Your task to perform on an android device: Search for usb-b on newegg, select the first entry, and add it to the cart. Image 0: 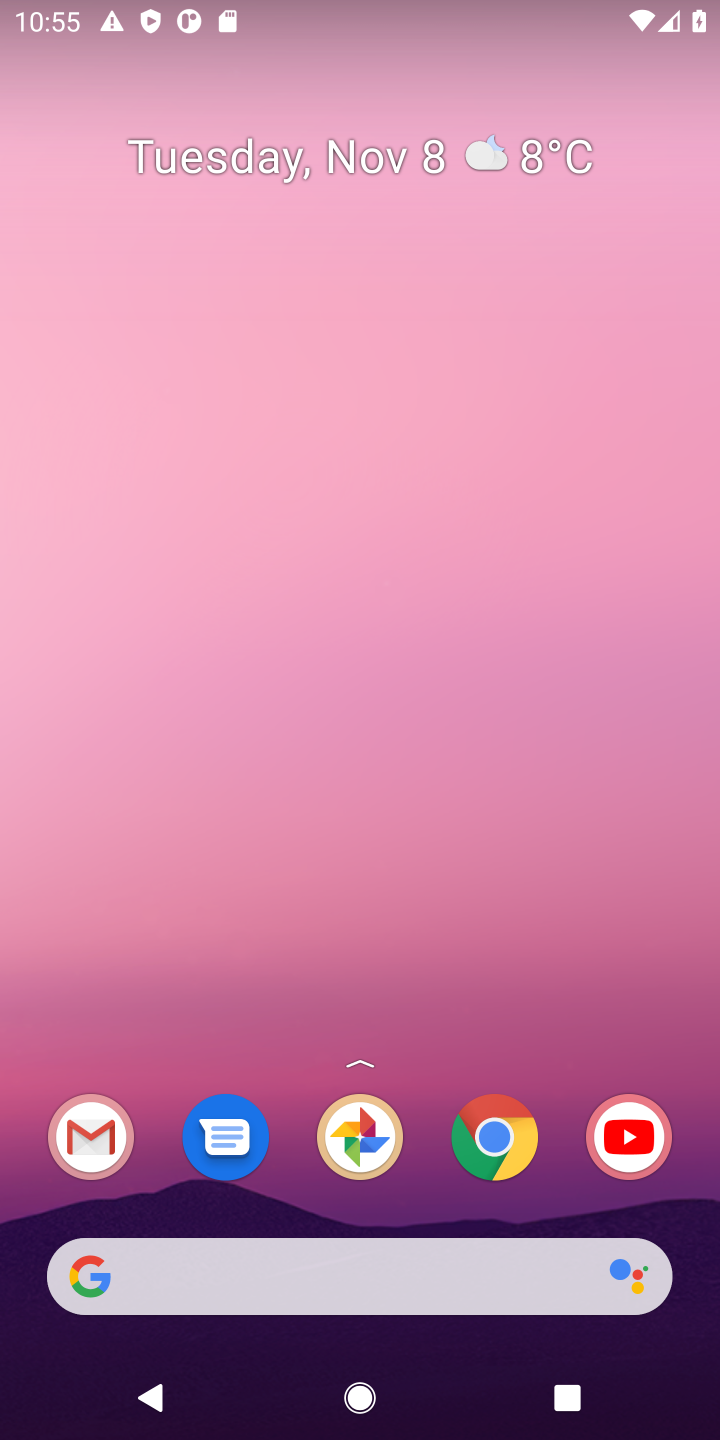
Step 0: click (493, 1167)
Your task to perform on an android device: Search for usb-b on newegg, select the first entry, and add it to the cart. Image 1: 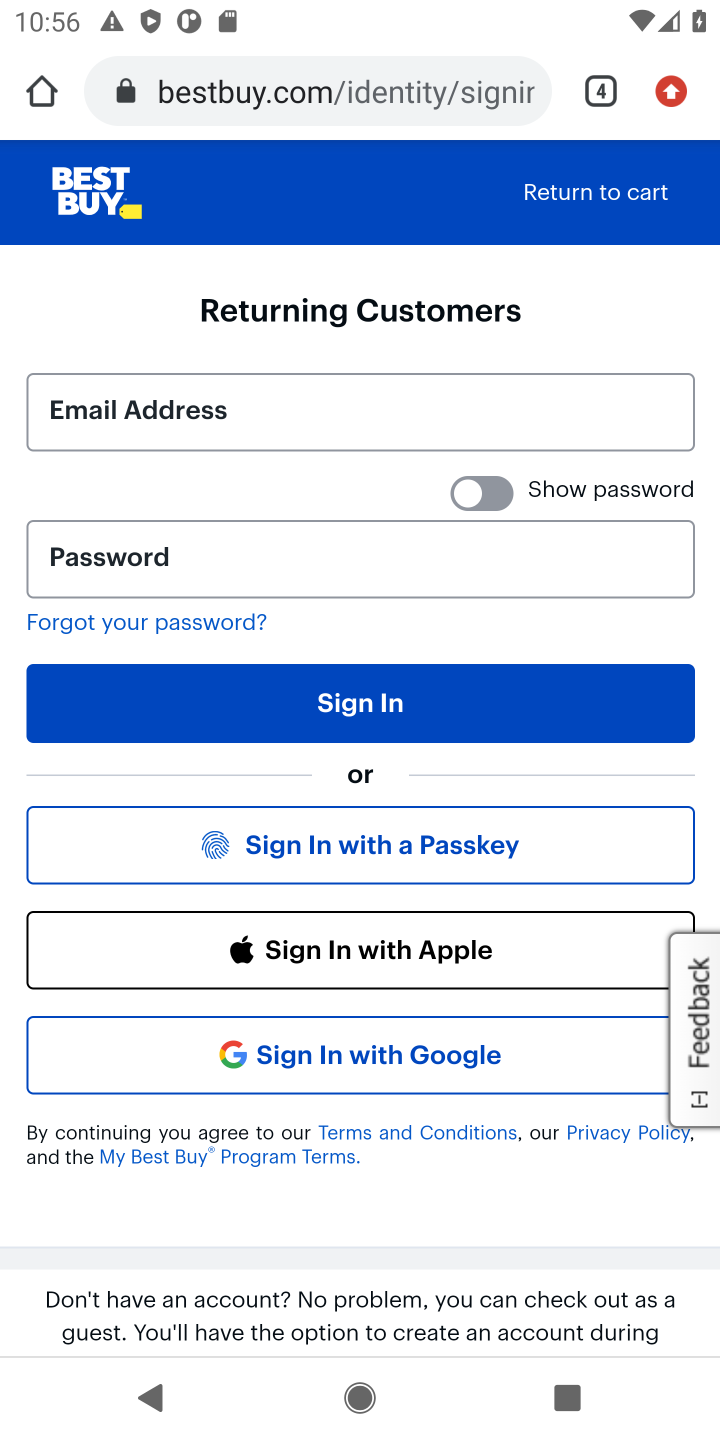
Step 1: click (602, 79)
Your task to perform on an android device: Search for usb-b on newegg, select the first entry, and add it to the cart. Image 2: 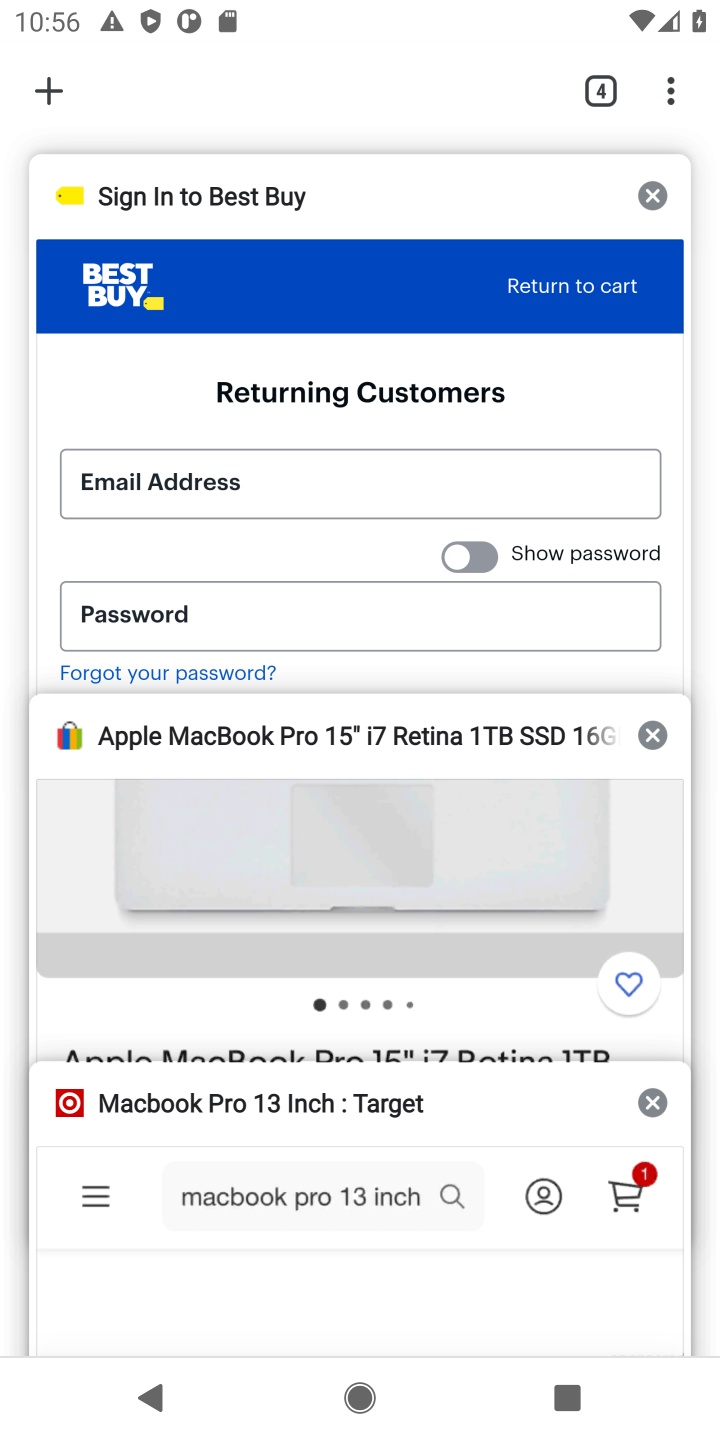
Step 2: click (50, 91)
Your task to perform on an android device: Search for usb-b on newegg, select the first entry, and add it to the cart. Image 3: 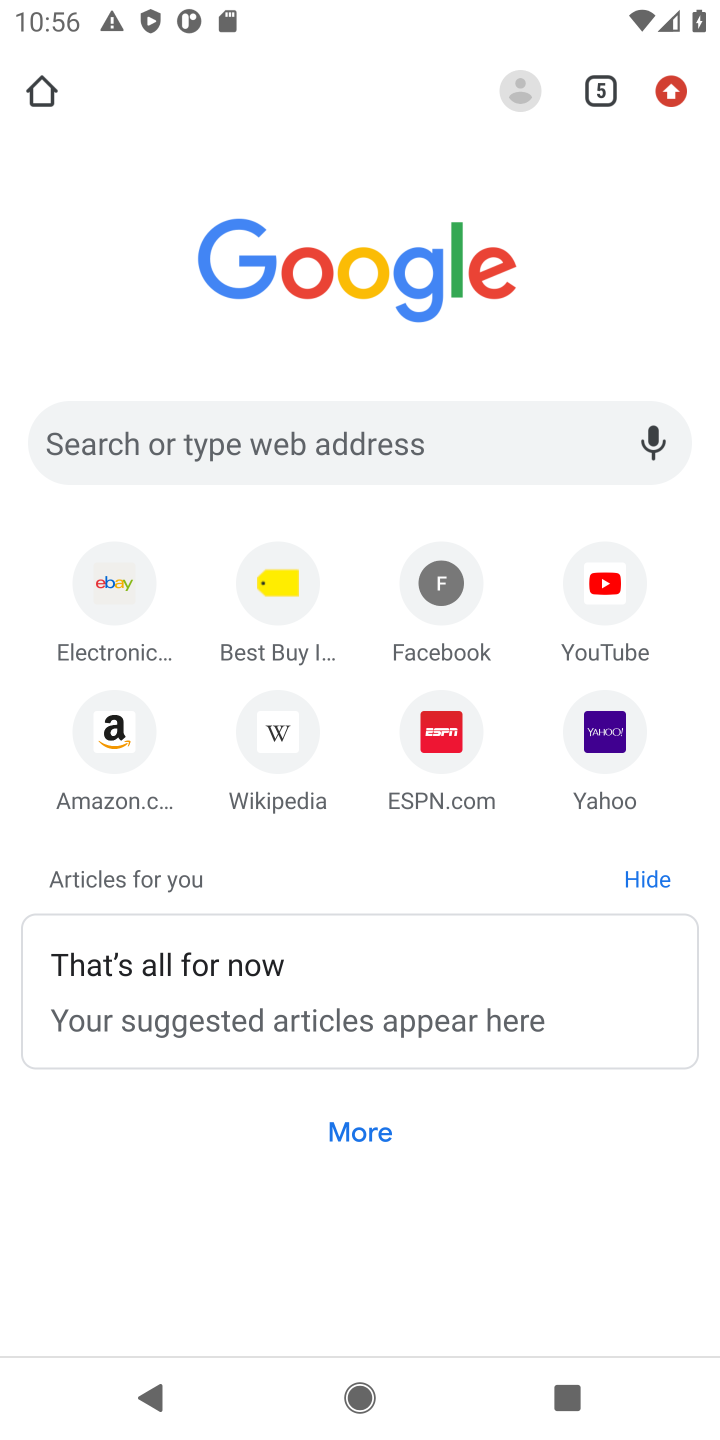
Step 3: click (250, 430)
Your task to perform on an android device: Search for usb-b on newegg, select the first entry, and add it to the cart. Image 4: 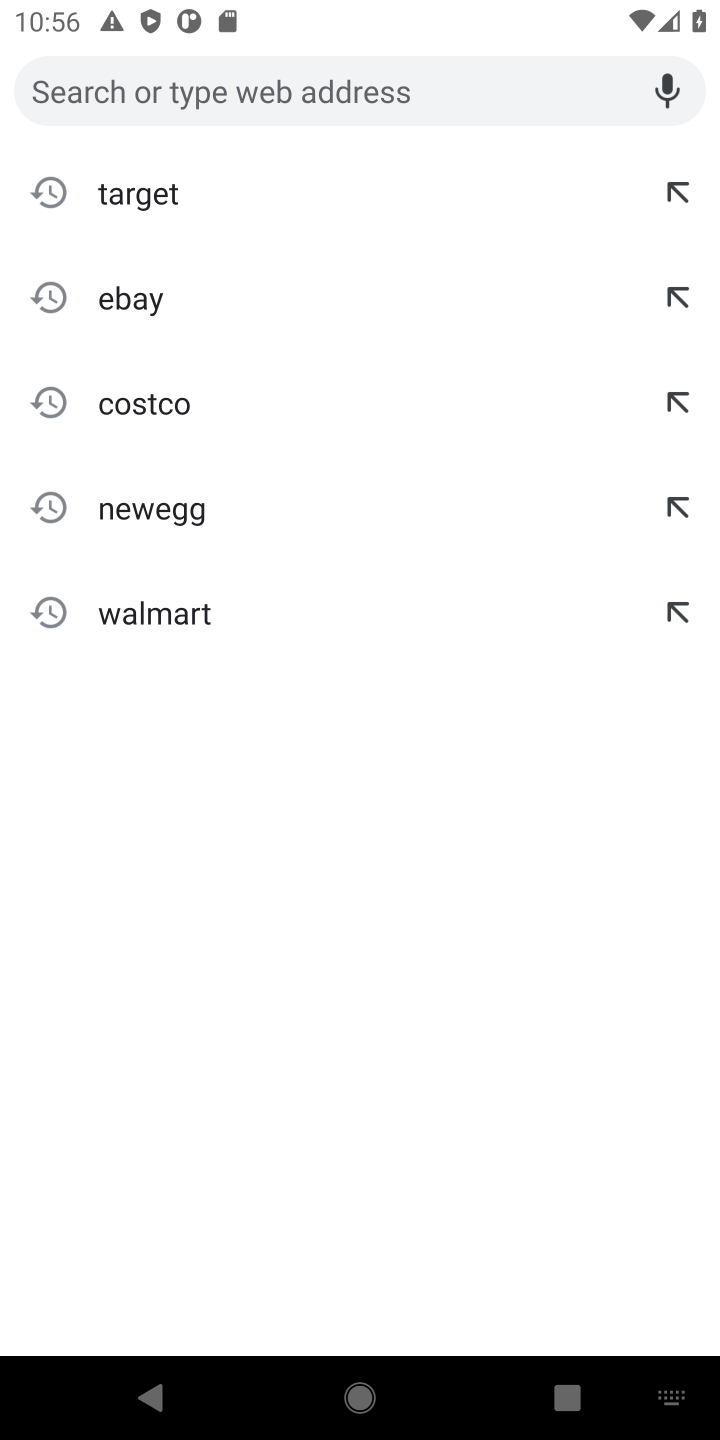
Step 4: click (141, 510)
Your task to perform on an android device: Search for usb-b on newegg, select the first entry, and add it to the cart. Image 5: 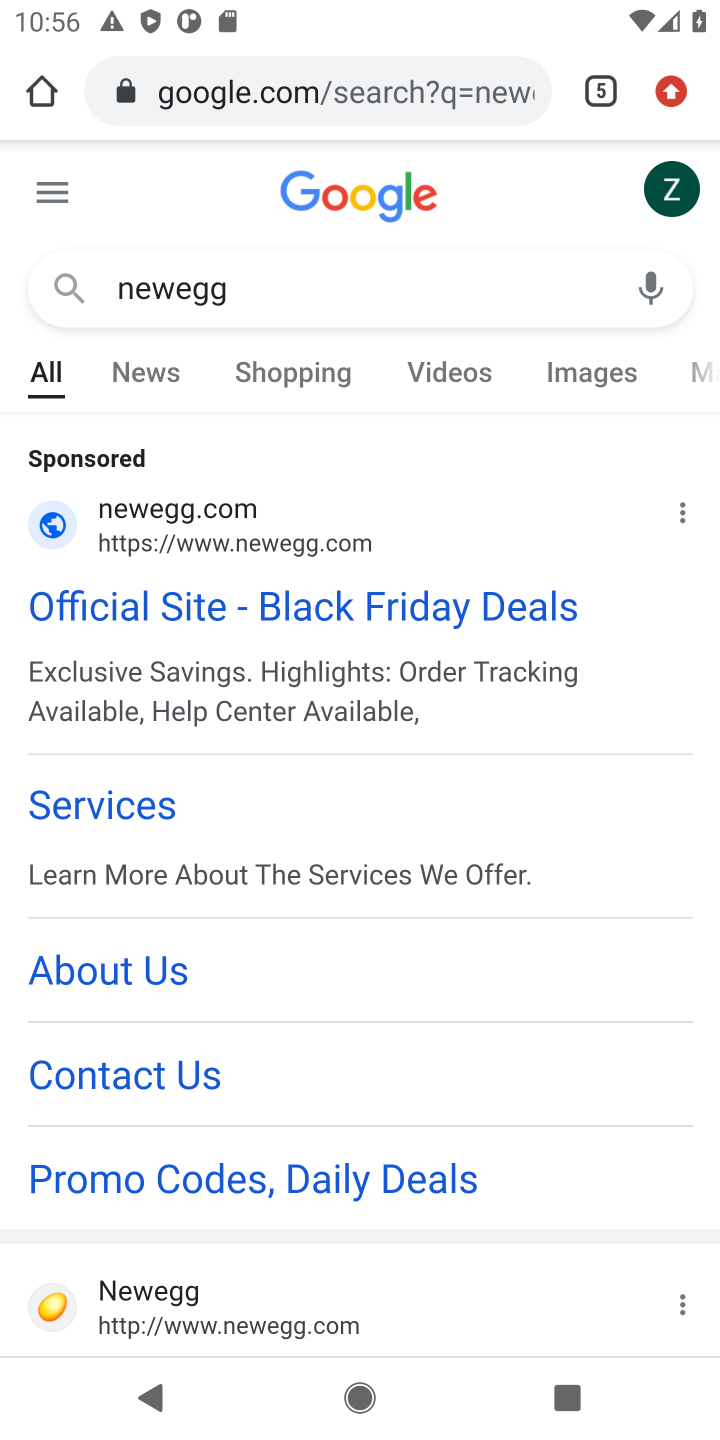
Step 5: drag from (281, 1281) to (553, 156)
Your task to perform on an android device: Search for usb-b on newegg, select the first entry, and add it to the cart. Image 6: 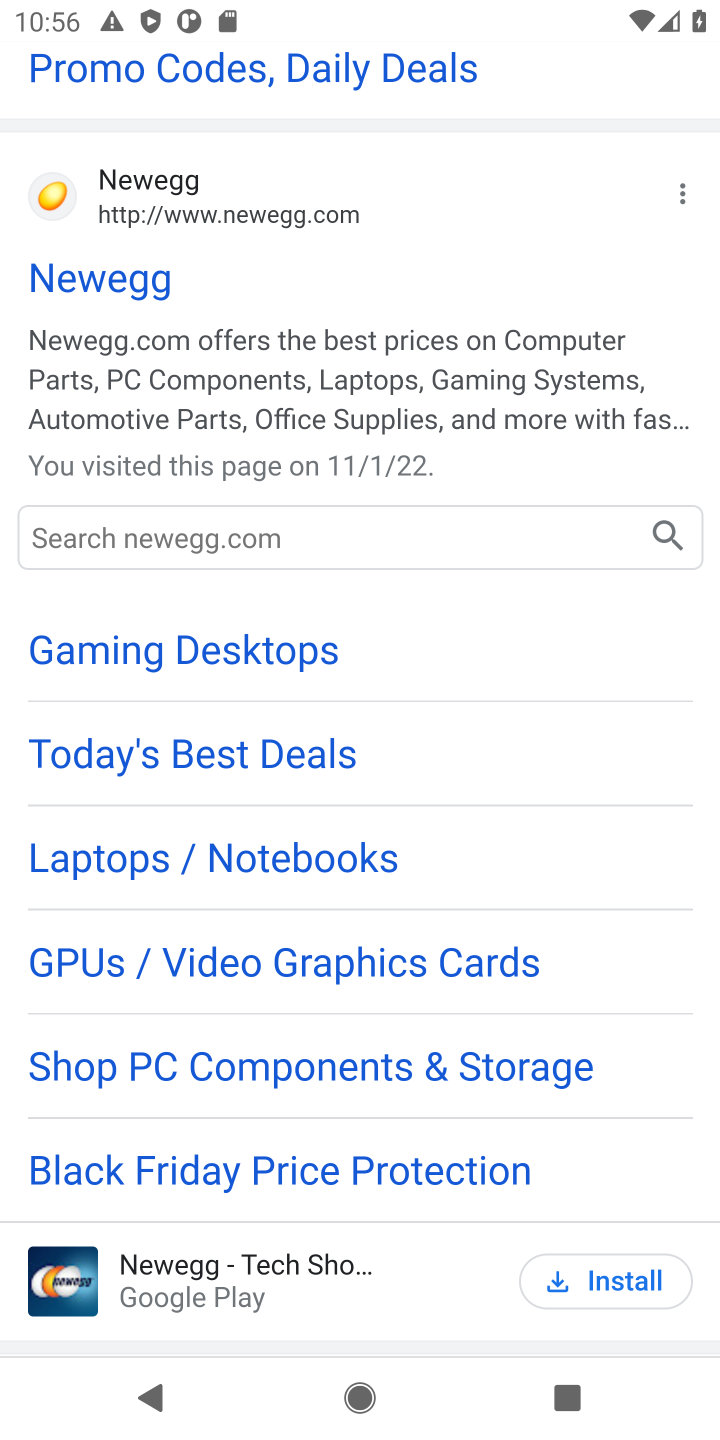
Step 6: click (118, 1028)
Your task to perform on an android device: Search for usb-b on newegg, select the first entry, and add it to the cart. Image 7: 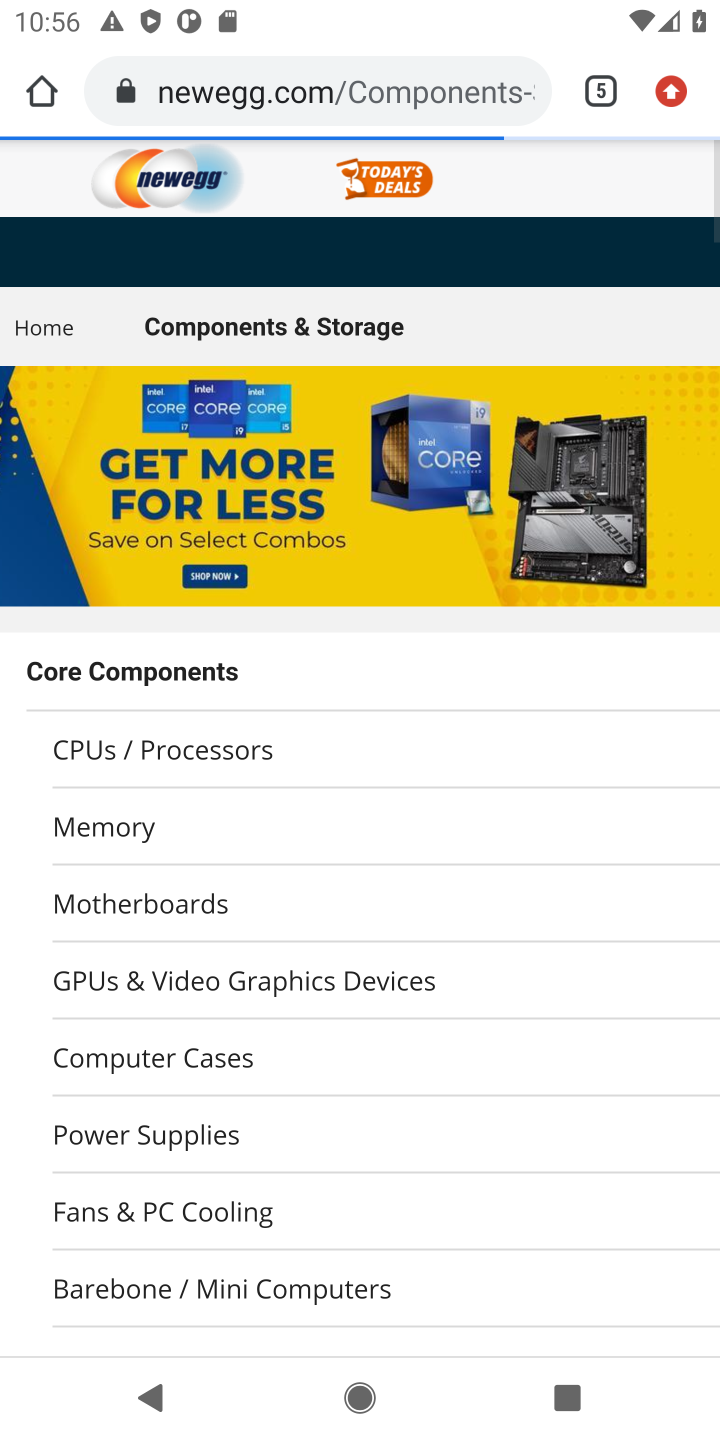
Step 7: click (224, 515)
Your task to perform on an android device: Search for usb-b on newegg, select the first entry, and add it to the cart. Image 8: 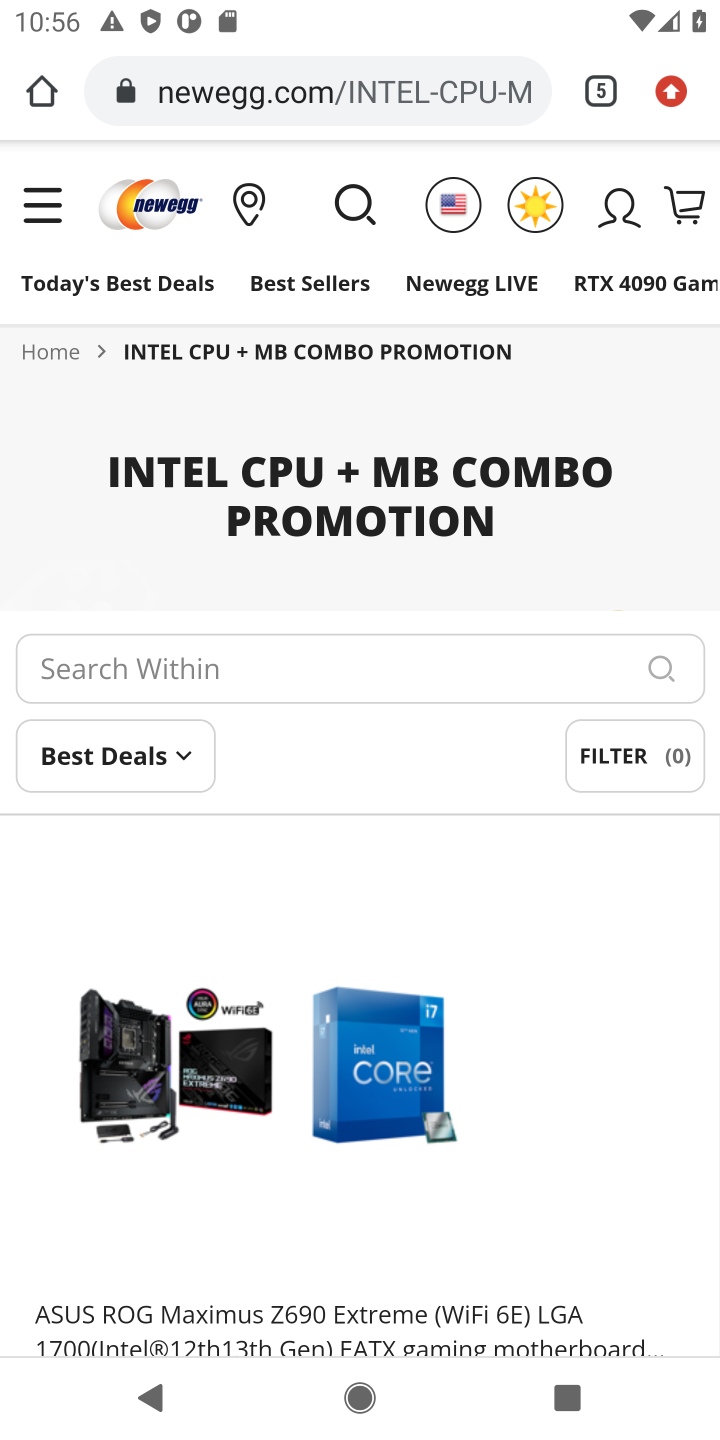
Step 8: click (449, 207)
Your task to perform on an android device: Search for usb-b on newegg, select the first entry, and add it to the cart. Image 9: 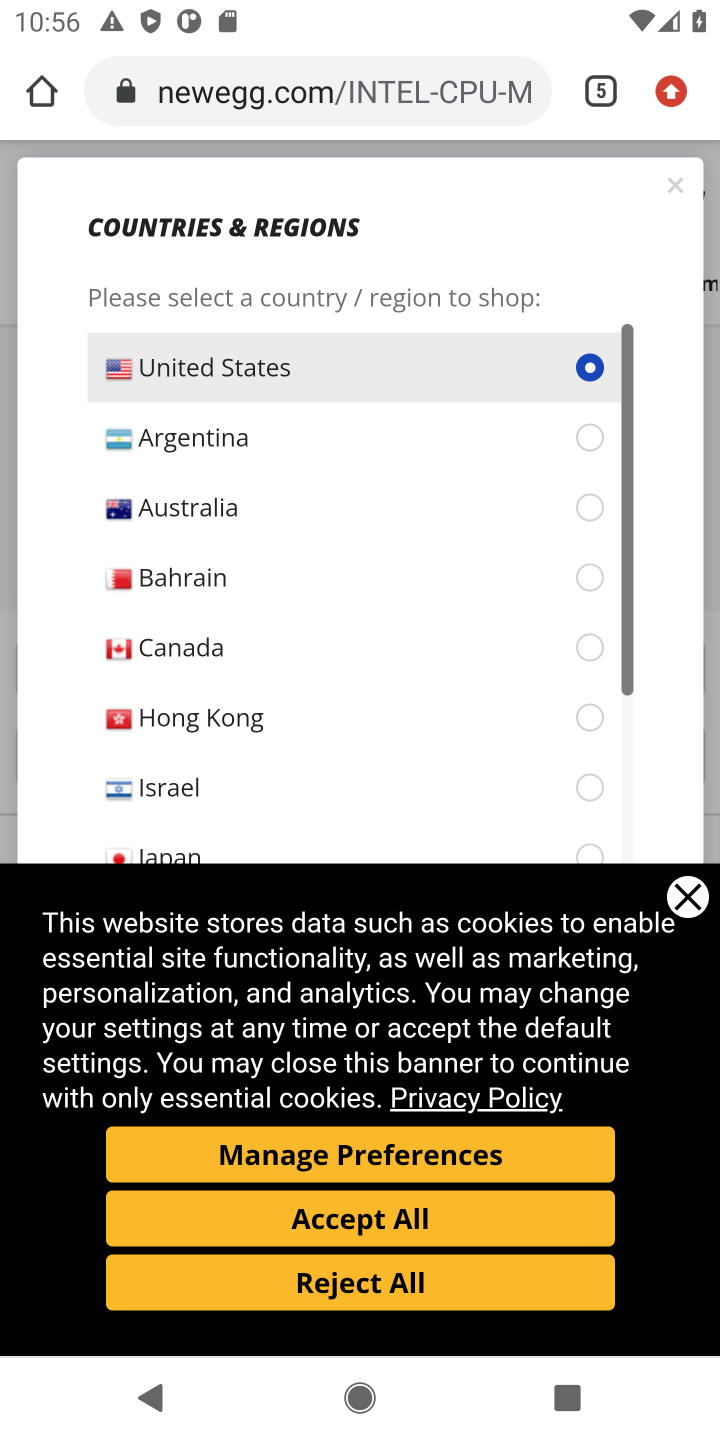
Step 9: click (345, 192)
Your task to perform on an android device: Search for usb-b on newegg, select the first entry, and add it to the cart. Image 10: 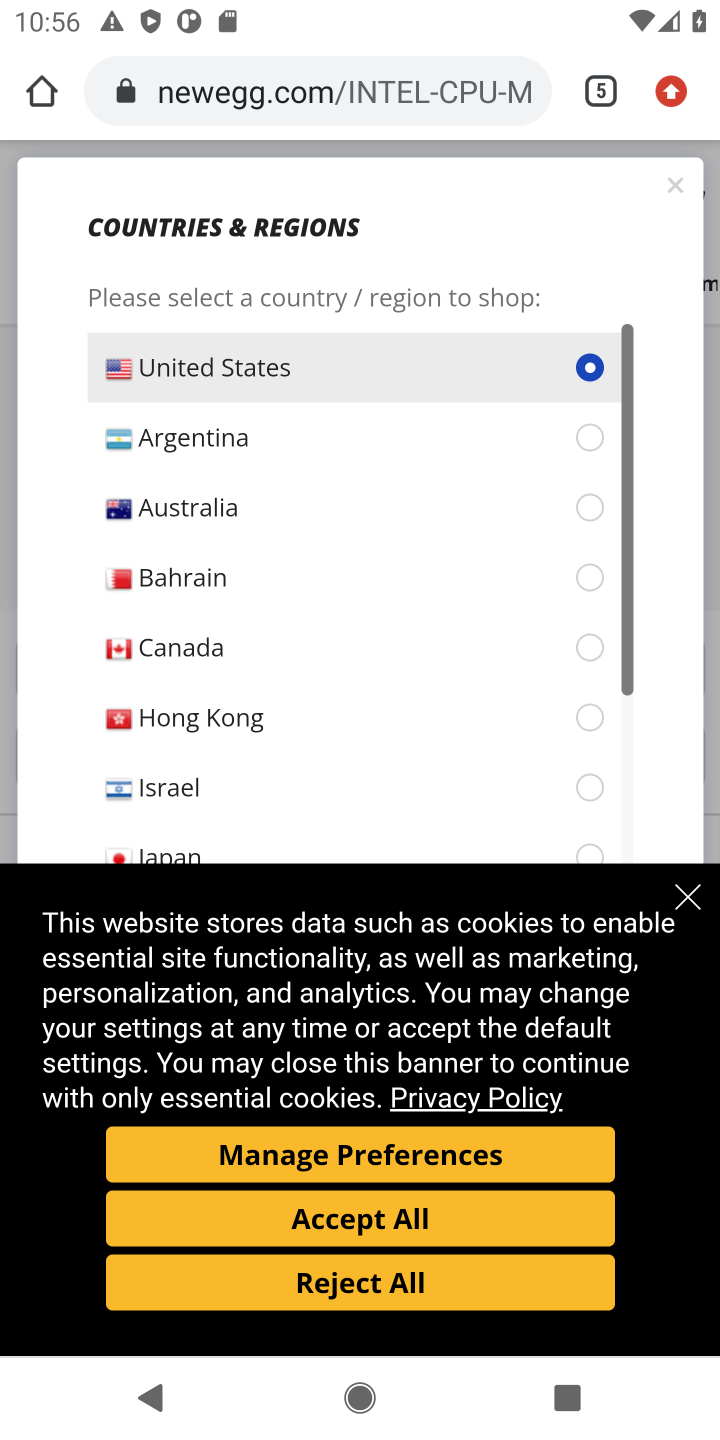
Step 10: click (676, 892)
Your task to perform on an android device: Search for usb-b on newegg, select the first entry, and add it to the cart. Image 11: 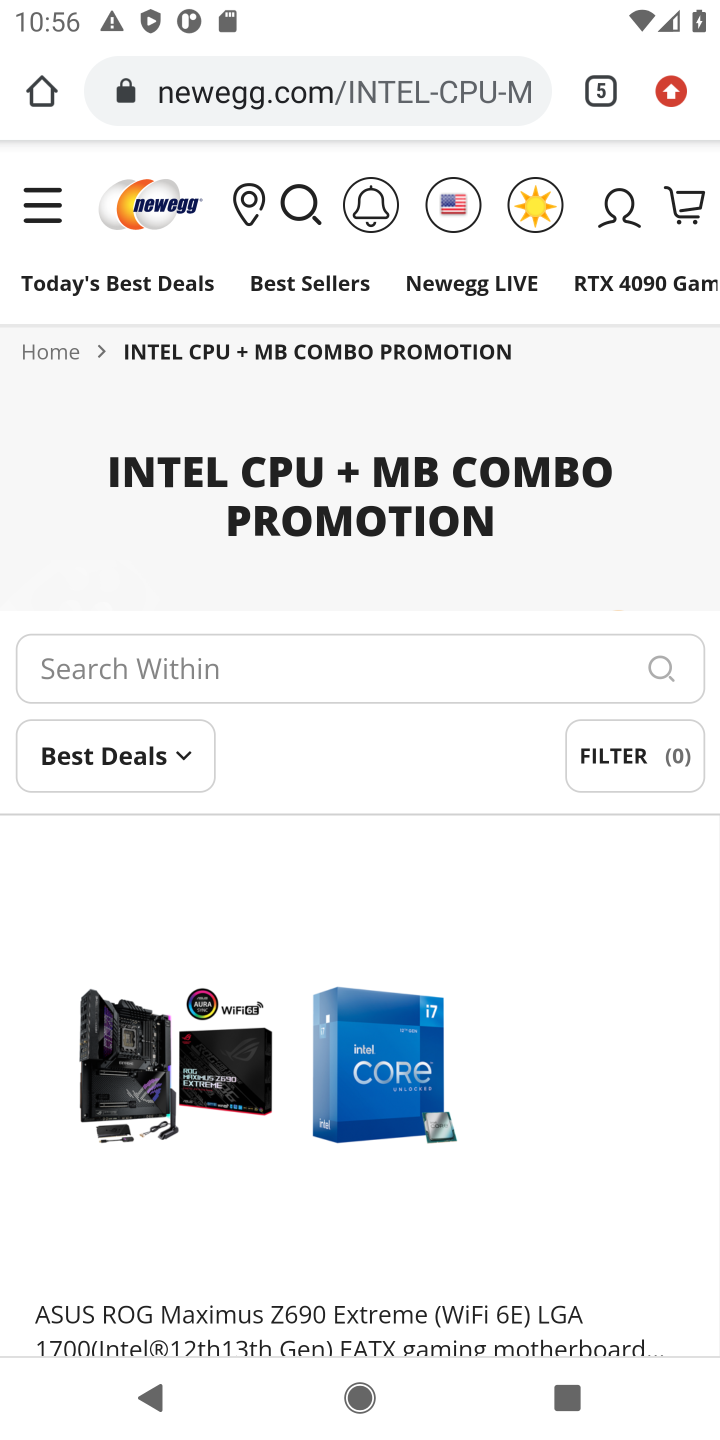
Step 11: click (311, 200)
Your task to perform on an android device: Search for usb-b on newegg, select the first entry, and add it to the cart. Image 12: 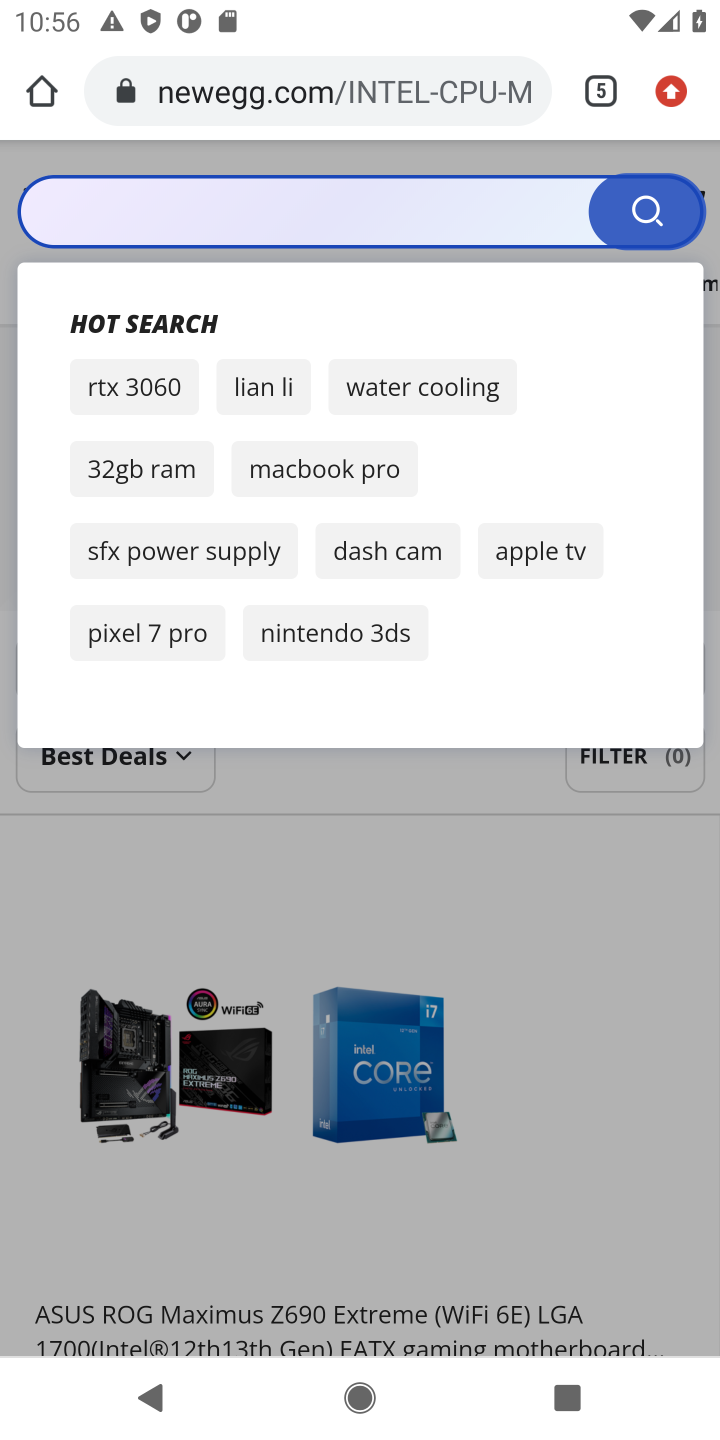
Step 12: type "usb-b"
Your task to perform on an android device: Search for usb-b on newegg, select the first entry, and add it to the cart. Image 13: 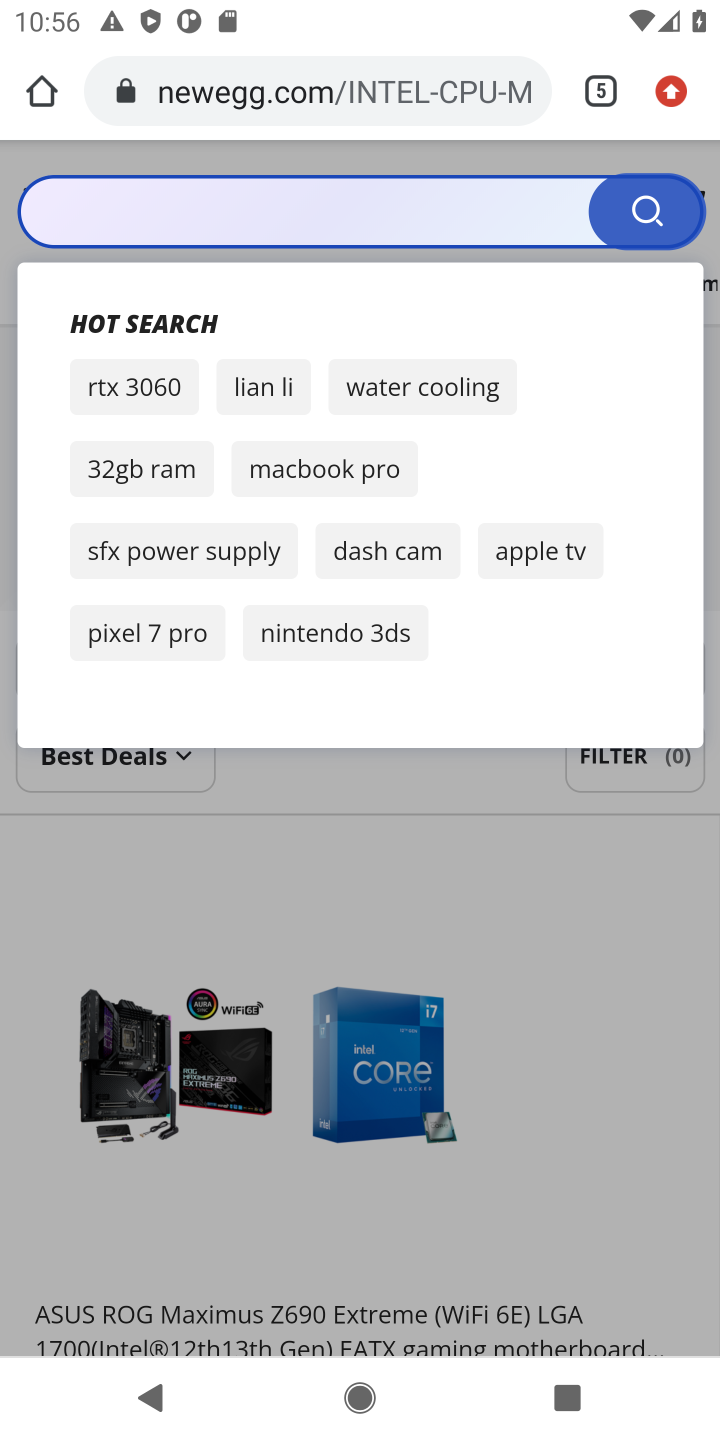
Step 13: click (385, 217)
Your task to perform on an android device: Search for usb-b on newegg, select the first entry, and add it to the cart. Image 14: 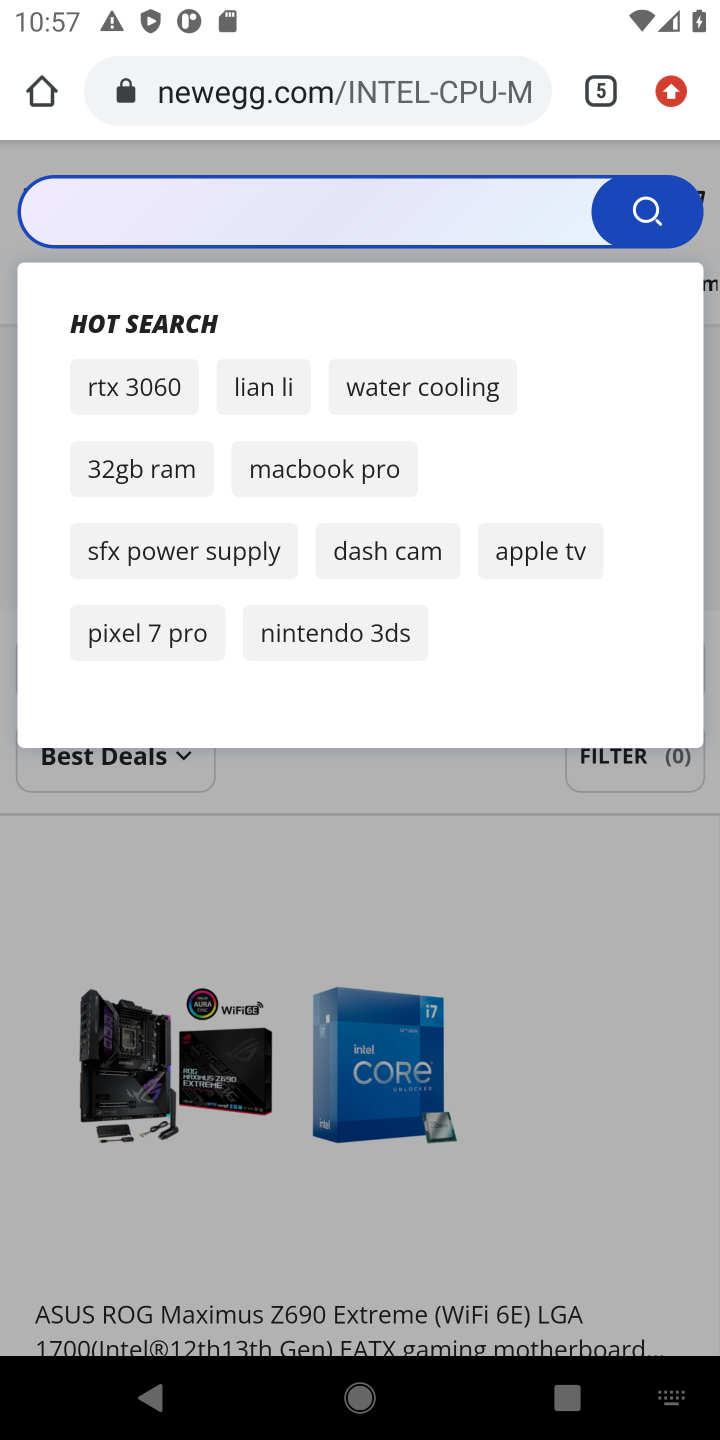
Step 14: type "usb-b"
Your task to perform on an android device: Search for usb-b on newegg, select the first entry, and add it to the cart. Image 15: 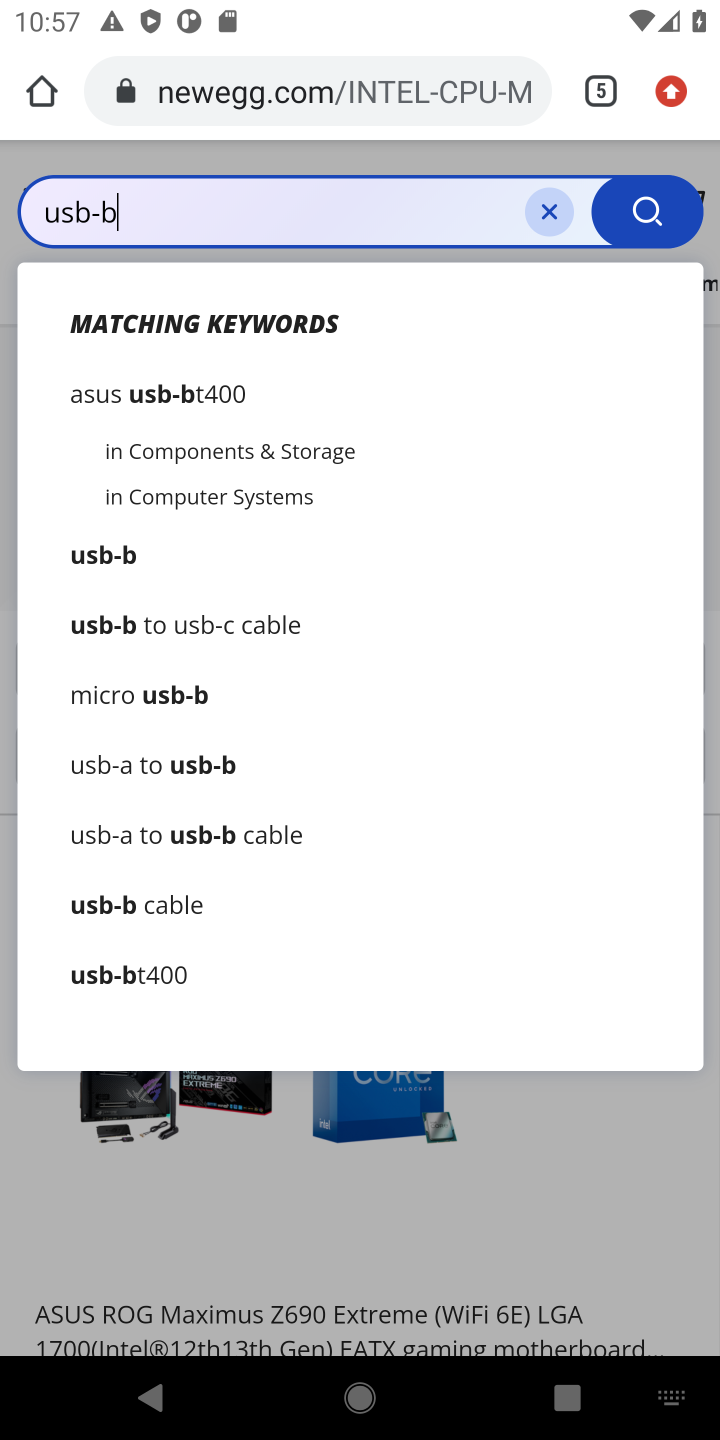
Step 15: click (651, 214)
Your task to perform on an android device: Search for usb-b on newegg, select the first entry, and add it to the cart. Image 16: 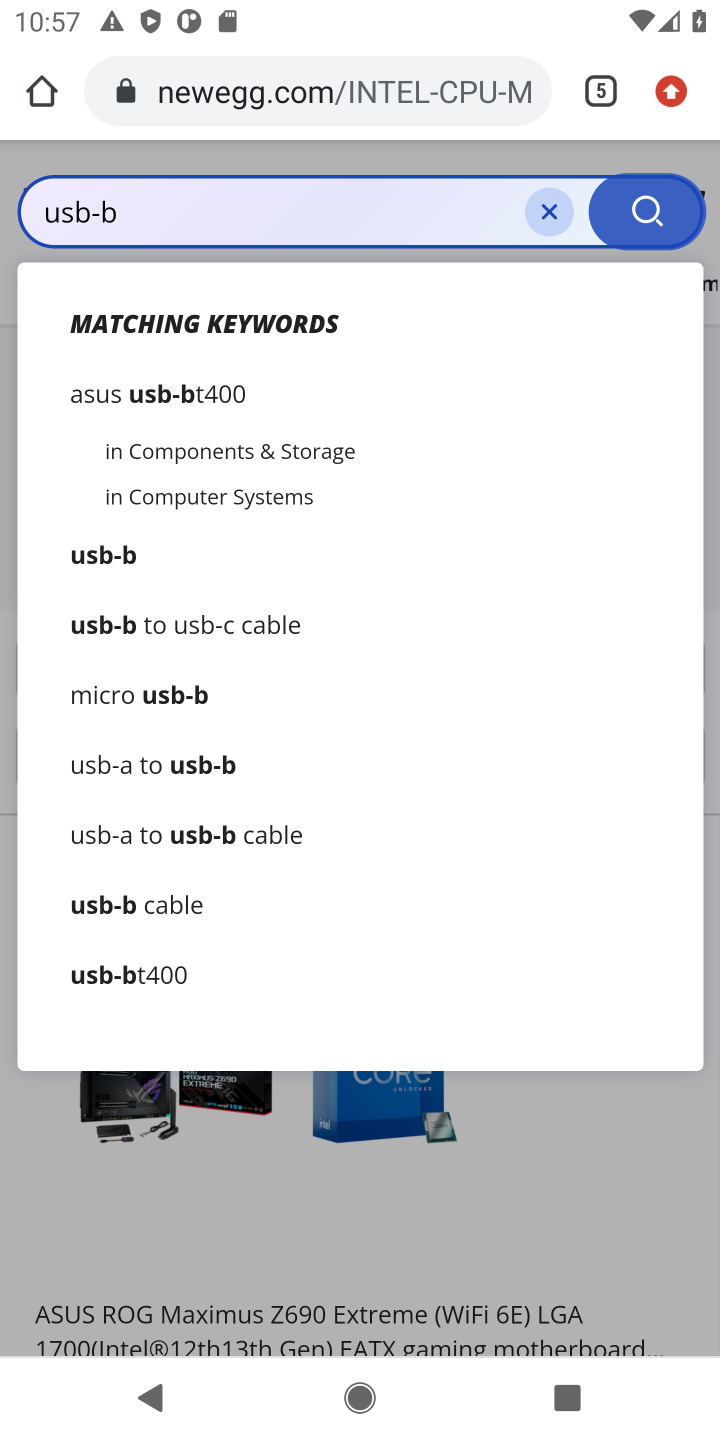
Step 16: click (91, 562)
Your task to perform on an android device: Search for usb-b on newegg, select the first entry, and add it to the cart. Image 17: 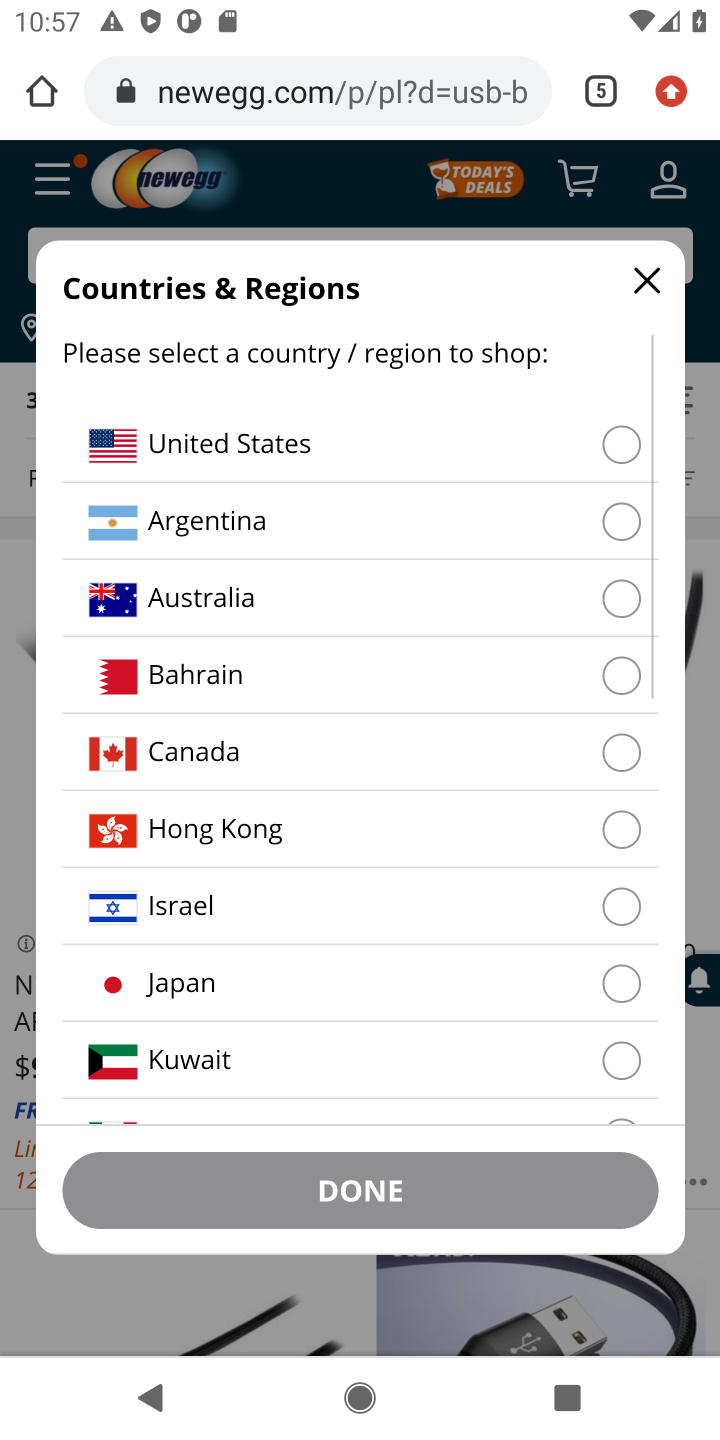
Step 17: click (621, 442)
Your task to perform on an android device: Search for usb-b on newegg, select the first entry, and add it to the cart. Image 18: 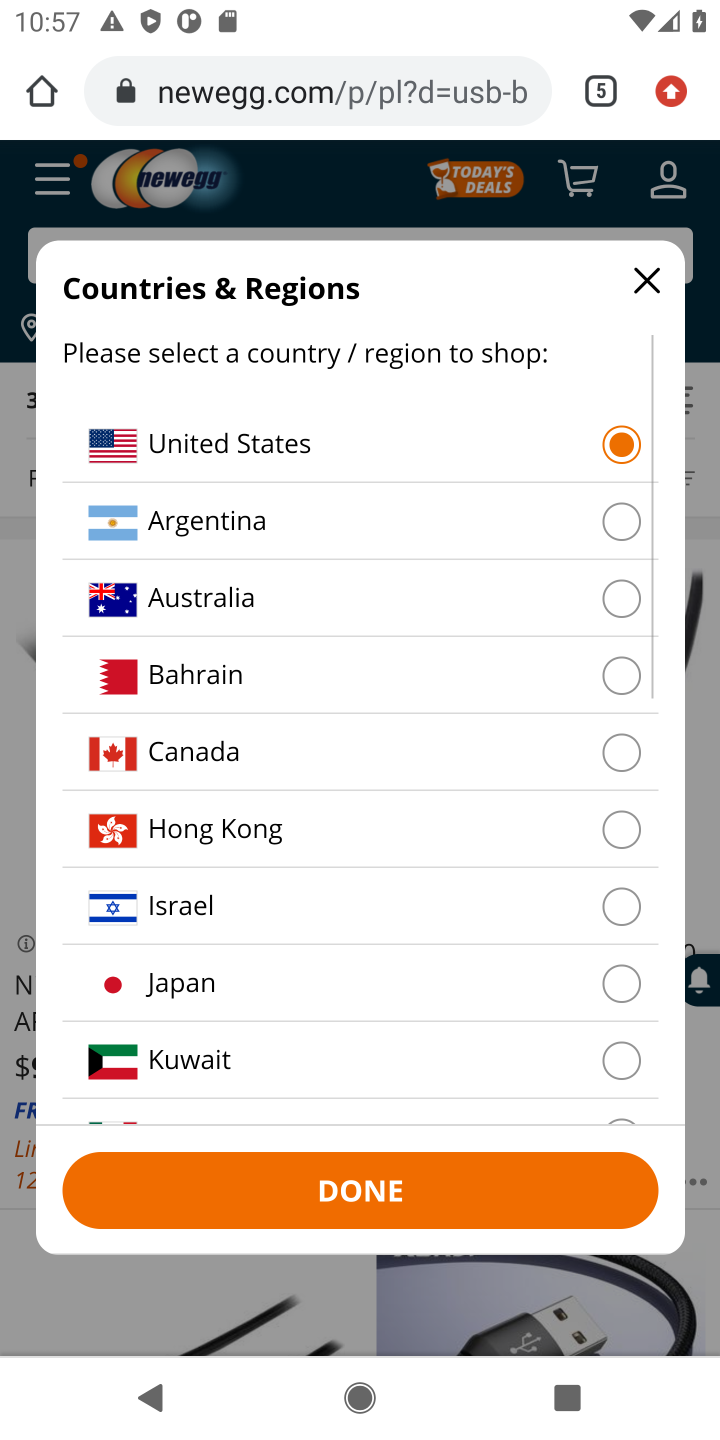
Step 18: click (388, 1185)
Your task to perform on an android device: Search for usb-b on newegg, select the first entry, and add it to the cart. Image 19: 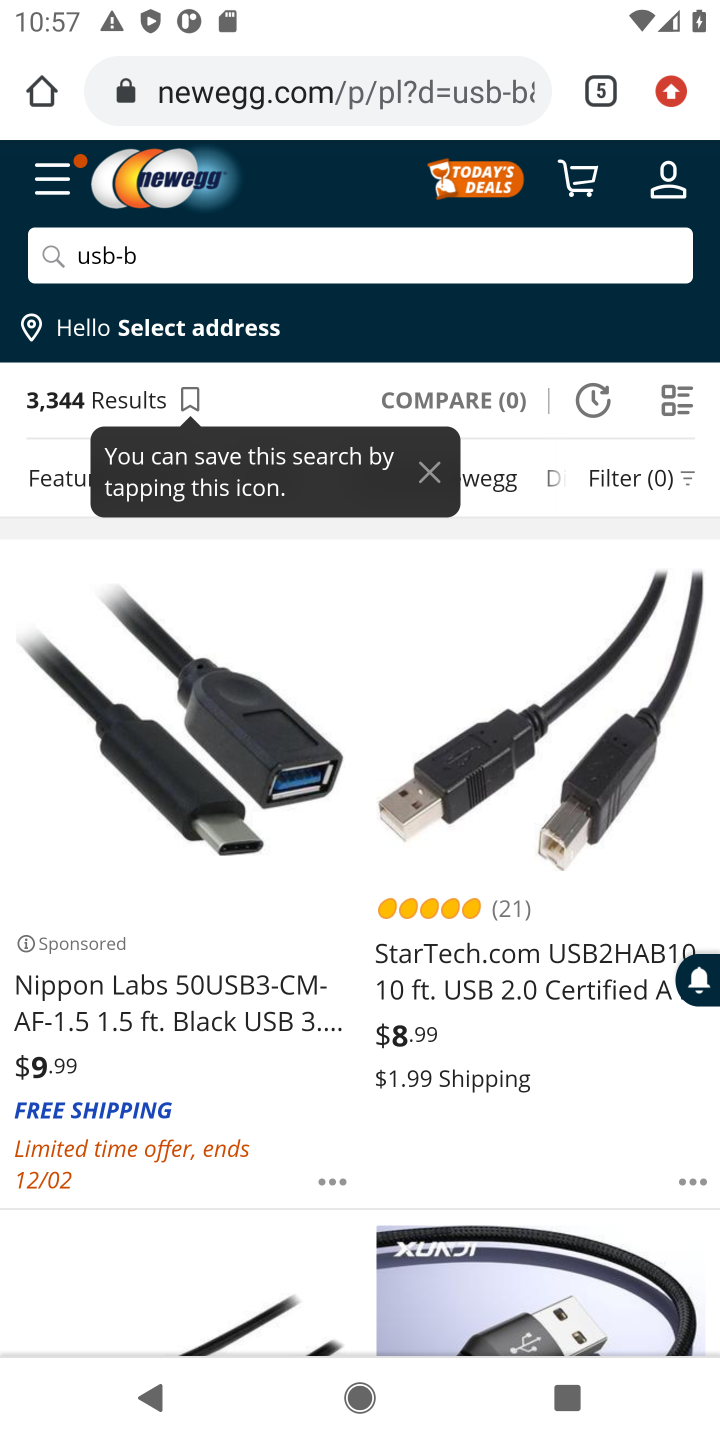
Step 19: click (218, 1040)
Your task to perform on an android device: Search for usb-b on newegg, select the first entry, and add it to the cart. Image 20: 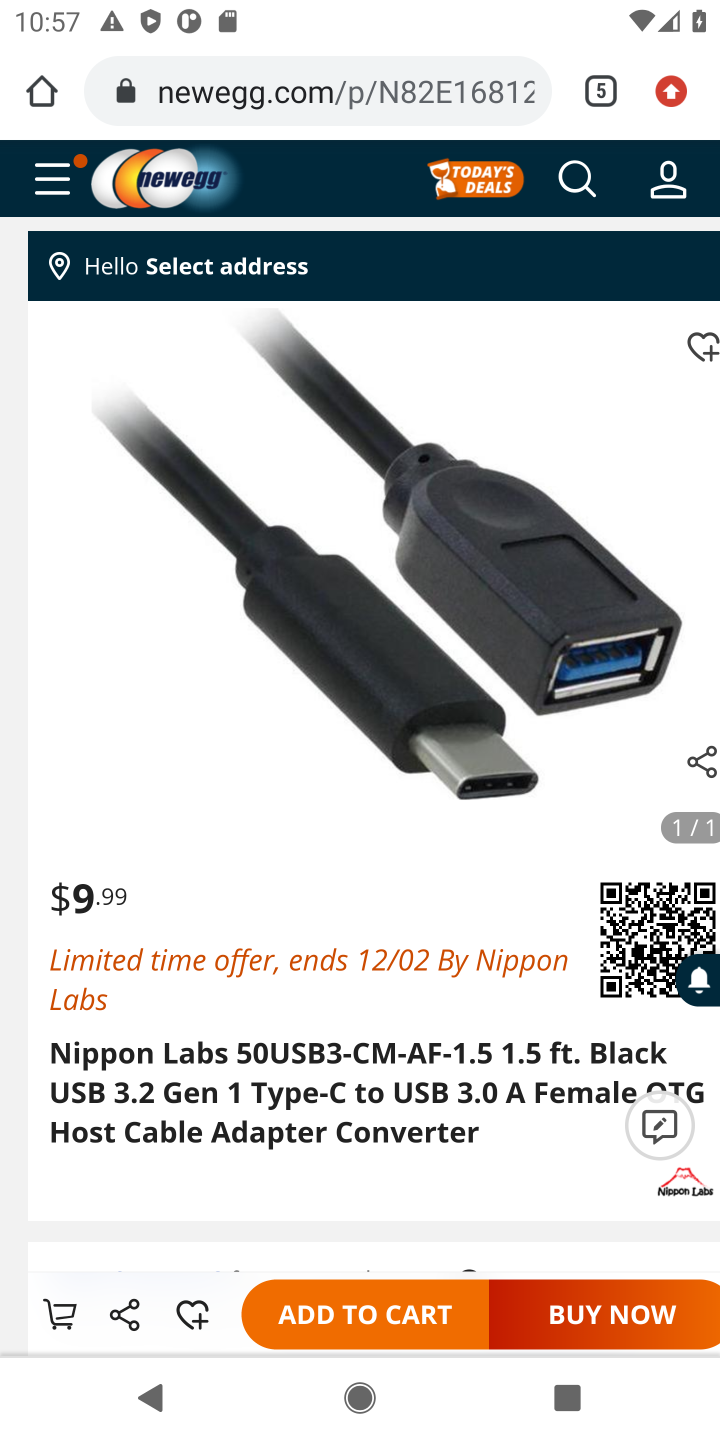
Step 20: click (421, 1316)
Your task to perform on an android device: Search for usb-b on newegg, select the first entry, and add it to the cart. Image 21: 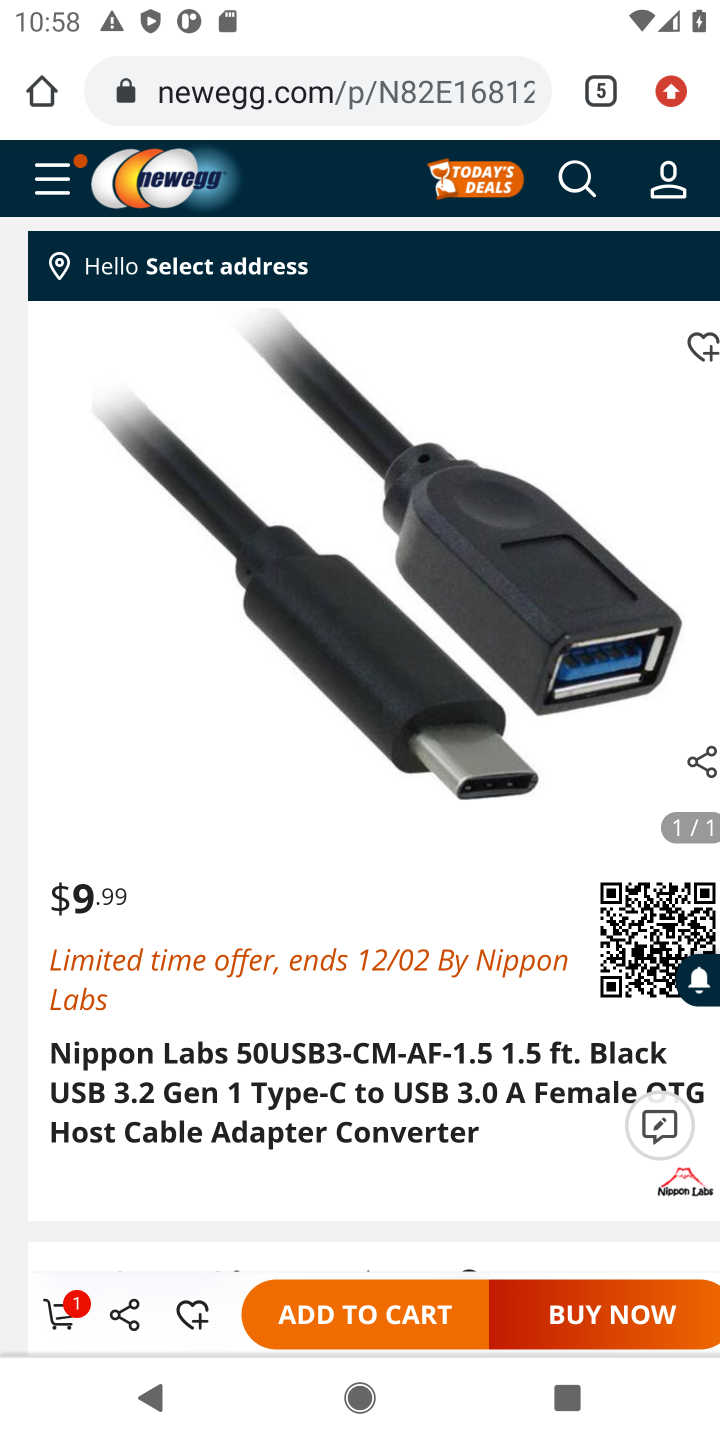
Step 21: task complete